Your task to perform on an android device: check storage Image 0: 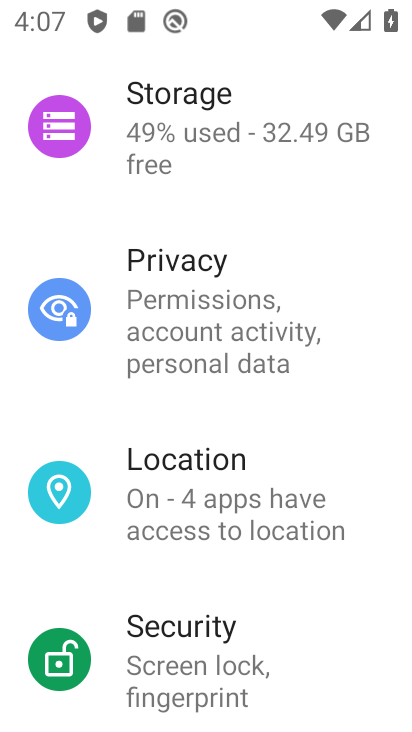
Step 0: press home button
Your task to perform on an android device: check storage Image 1: 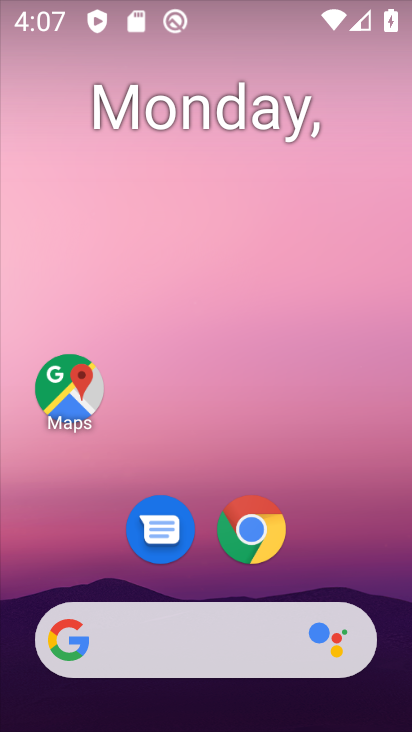
Step 1: drag from (221, 575) to (284, 10)
Your task to perform on an android device: check storage Image 2: 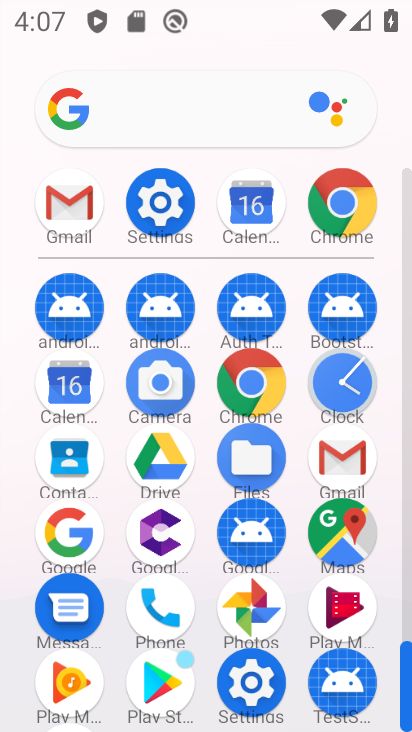
Step 2: click (177, 190)
Your task to perform on an android device: check storage Image 3: 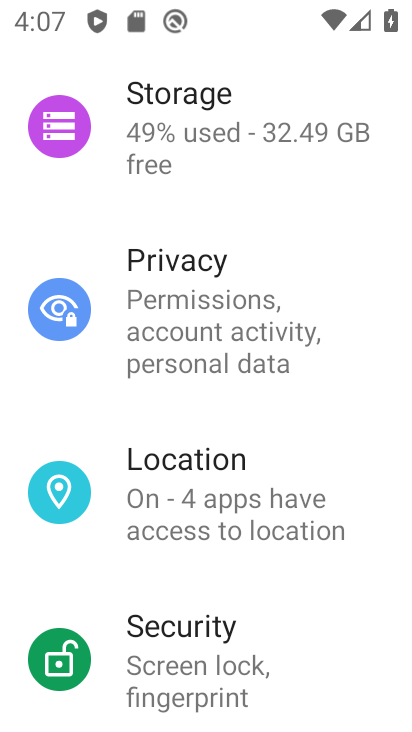
Step 3: drag from (220, 585) to (251, 551)
Your task to perform on an android device: check storage Image 4: 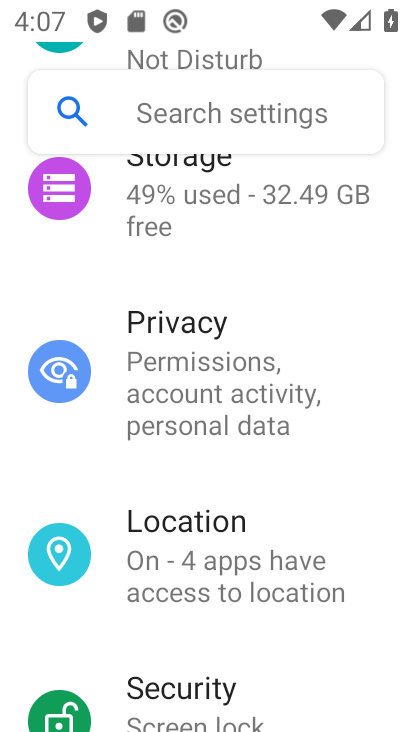
Step 4: click (211, 211)
Your task to perform on an android device: check storage Image 5: 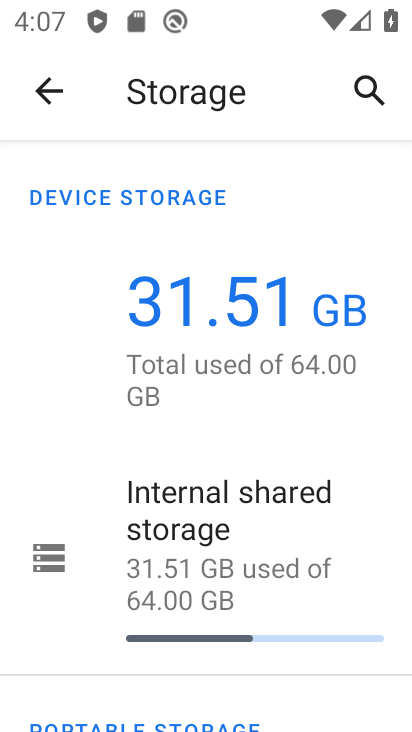
Step 5: task complete